Your task to perform on an android device: turn smart compose on in the gmail app Image 0: 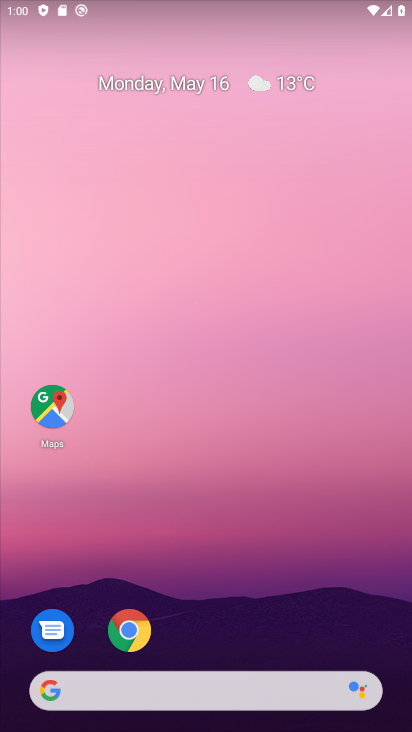
Step 0: drag from (408, 290) to (409, 130)
Your task to perform on an android device: turn smart compose on in the gmail app Image 1: 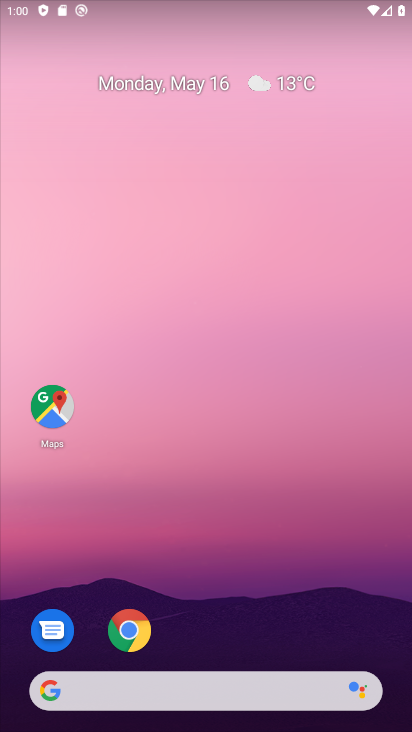
Step 1: drag from (286, 569) to (286, 481)
Your task to perform on an android device: turn smart compose on in the gmail app Image 2: 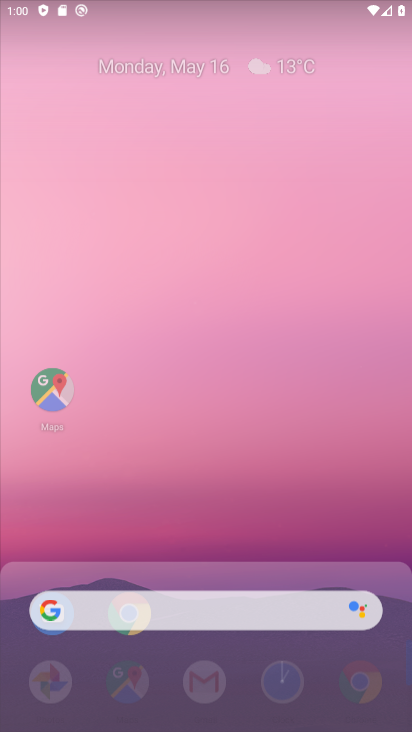
Step 2: drag from (300, 94) to (304, 8)
Your task to perform on an android device: turn smart compose on in the gmail app Image 3: 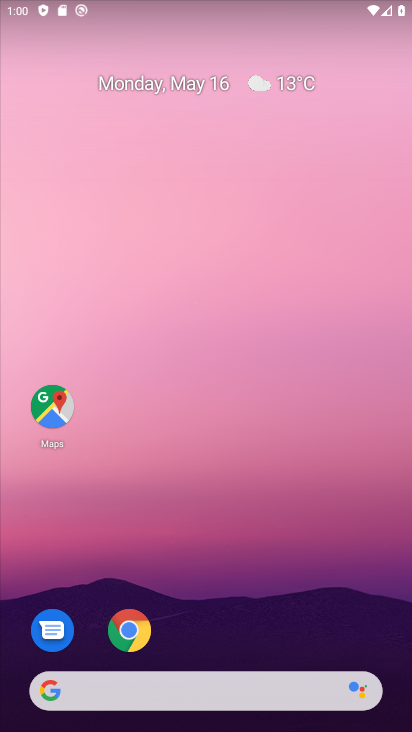
Step 3: drag from (288, 610) to (304, 0)
Your task to perform on an android device: turn smart compose on in the gmail app Image 4: 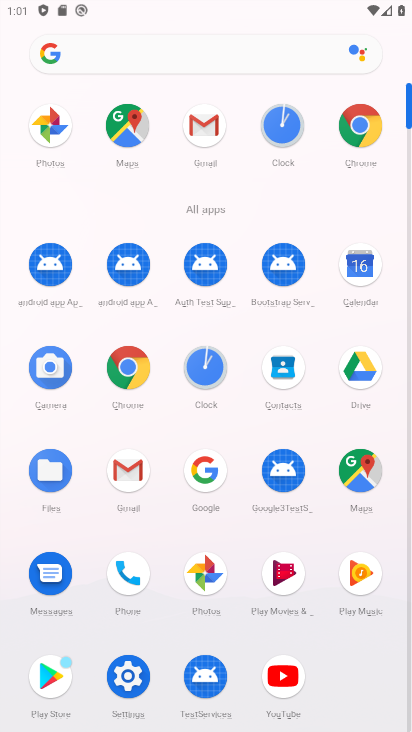
Step 4: click (196, 125)
Your task to perform on an android device: turn smart compose on in the gmail app Image 5: 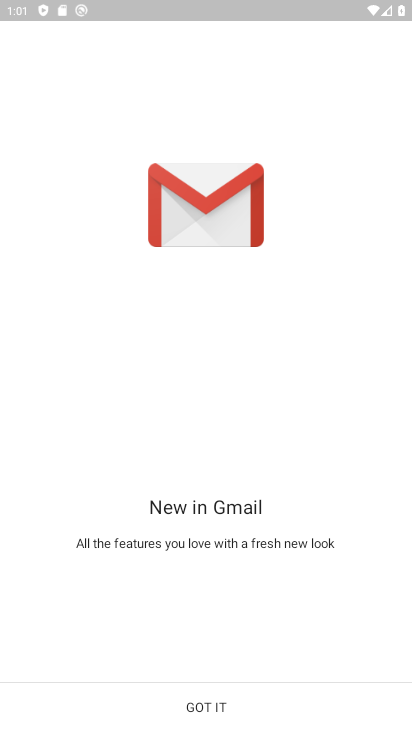
Step 5: click (217, 701)
Your task to perform on an android device: turn smart compose on in the gmail app Image 6: 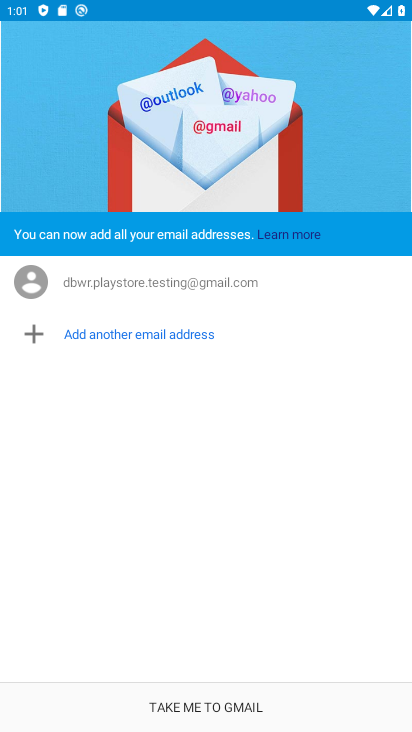
Step 6: click (181, 275)
Your task to perform on an android device: turn smart compose on in the gmail app Image 7: 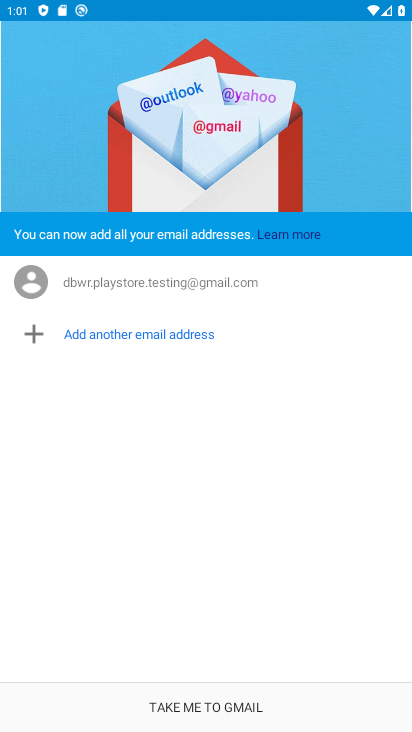
Step 7: click (119, 343)
Your task to perform on an android device: turn smart compose on in the gmail app Image 8: 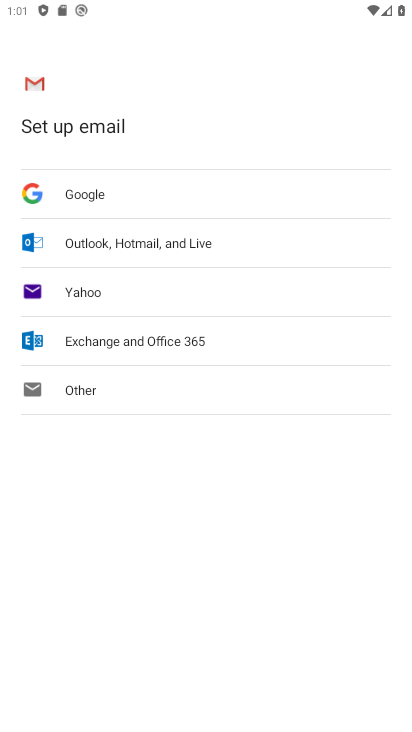
Step 8: task complete